Your task to perform on an android device: toggle priority inbox in the gmail app Image 0: 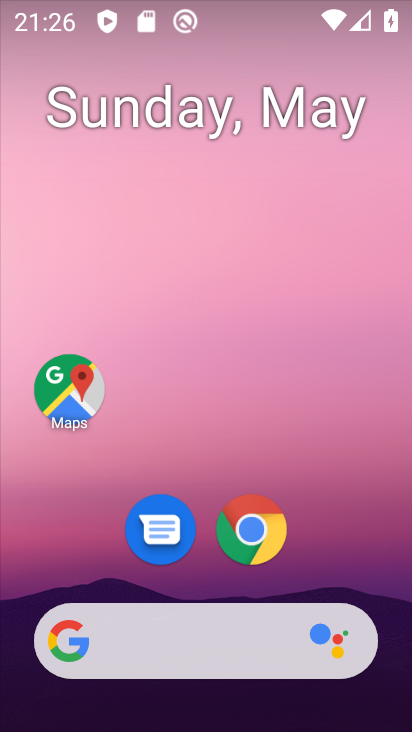
Step 0: drag from (312, 574) to (280, 14)
Your task to perform on an android device: toggle priority inbox in the gmail app Image 1: 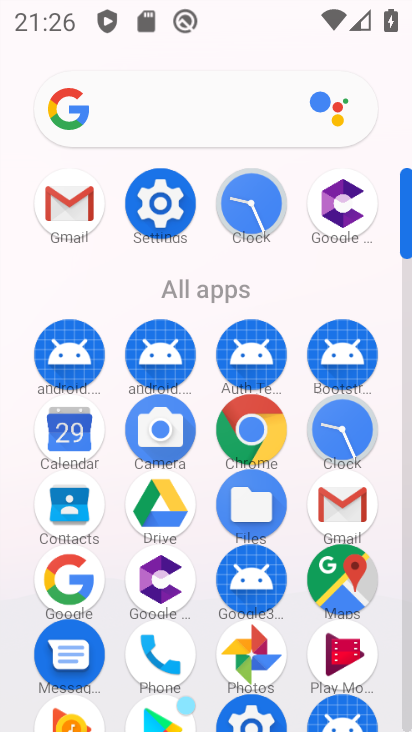
Step 1: click (68, 207)
Your task to perform on an android device: toggle priority inbox in the gmail app Image 2: 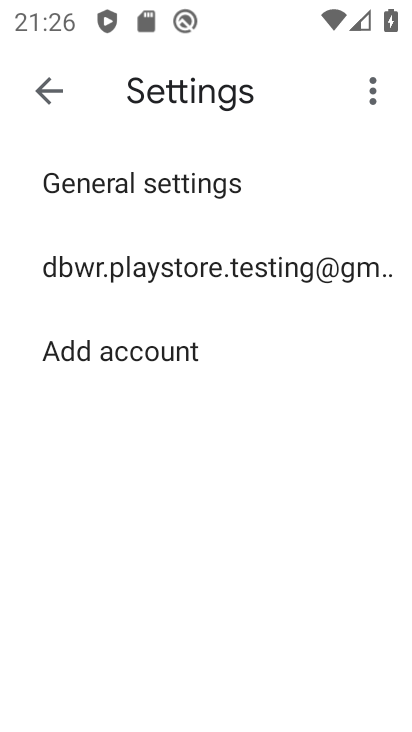
Step 2: click (105, 282)
Your task to perform on an android device: toggle priority inbox in the gmail app Image 3: 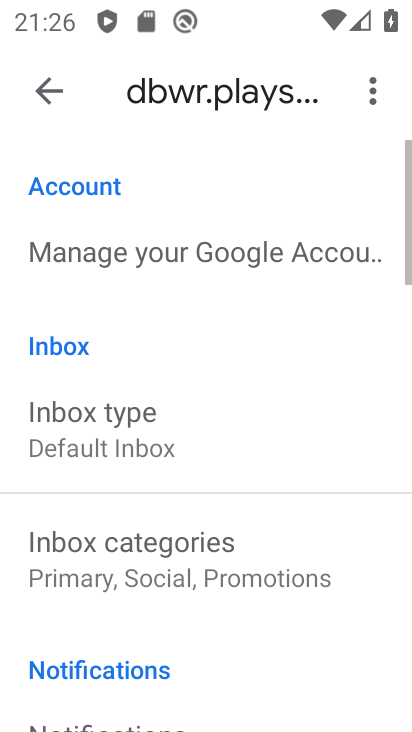
Step 3: click (110, 446)
Your task to perform on an android device: toggle priority inbox in the gmail app Image 4: 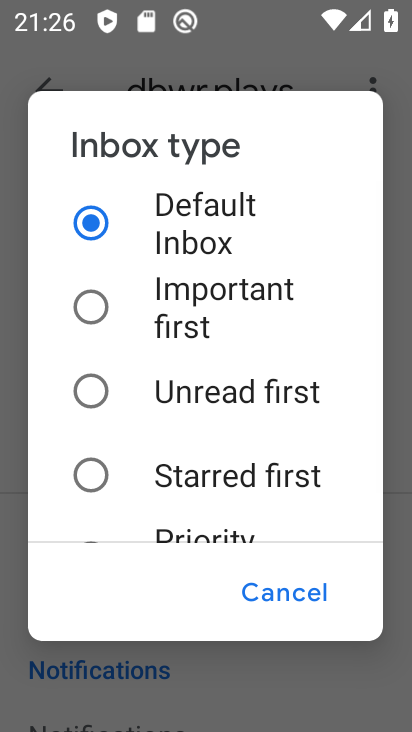
Step 4: drag from (148, 380) to (157, 169)
Your task to perform on an android device: toggle priority inbox in the gmail app Image 5: 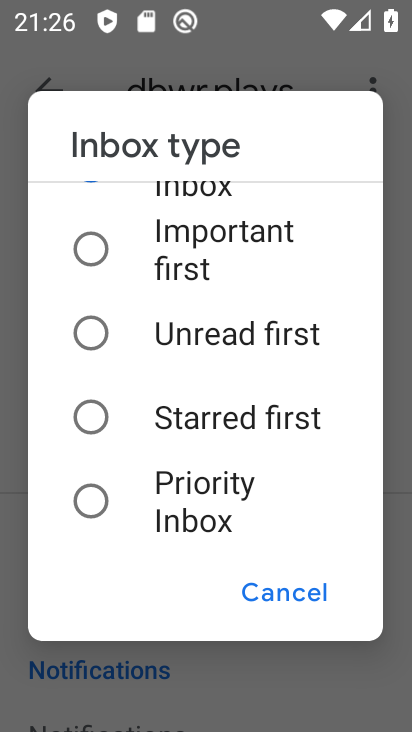
Step 5: click (200, 468)
Your task to perform on an android device: toggle priority inbox in the gmail app Image 6: 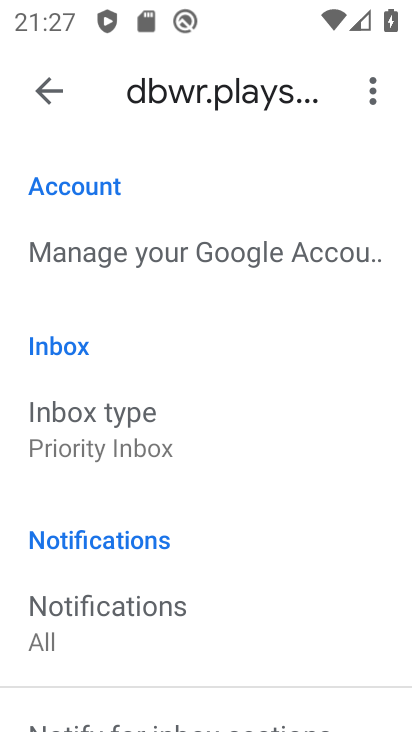
Step 6: task complete